Your task to perform on an android device: delete browsing data in the chrome app Image 0: 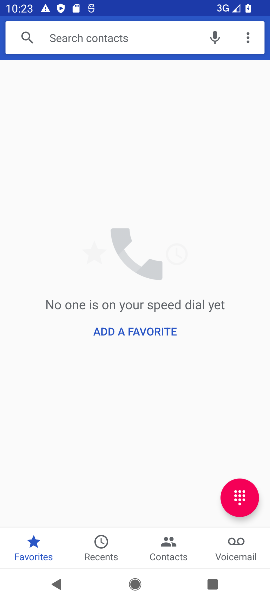
Step 0: press home button
Your task to perform on an android device: delete browsing data in the chrome app Image 1: 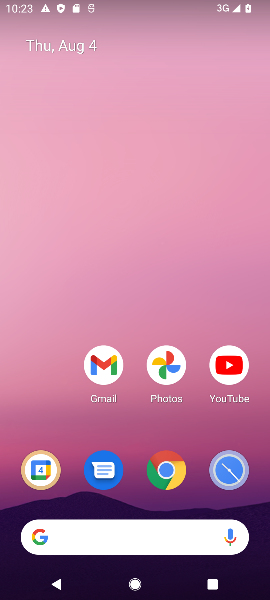
Step 1: click (172, 465)
Your task to perform on an android device: delete browsing data in the chrome app Image 2: 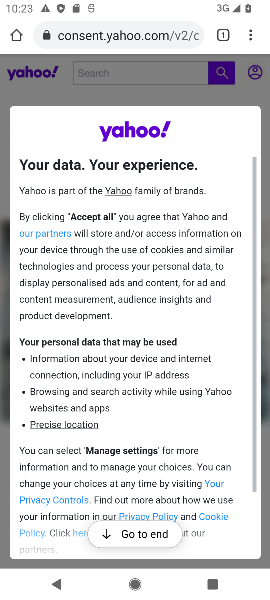
Step 2: click (249, 35)
Your task to perform on an android device: delete browsing data in the chrome app Image 3: 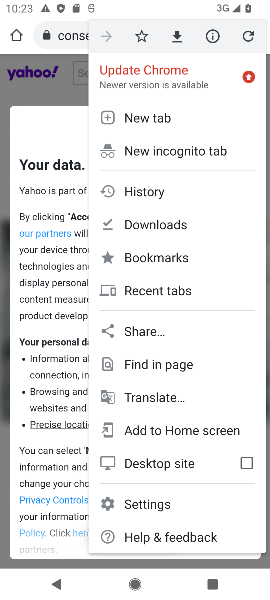
Step 3: click (138, 200)
Your task to perform on an android device: delete browsing data in the chrome app Image 4: 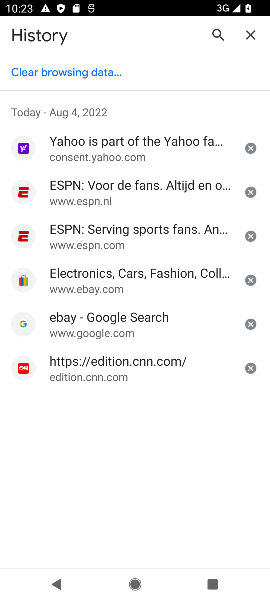
Step 4: click (74, 69)
Your task to perform on an android device: delete browsing data in the chrome app Image 5: 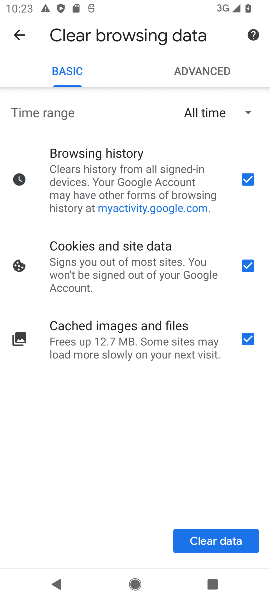
Step 5: click (199, 538)
Your task to perform on an android device: delete browsing data in the chrome app Image 6: 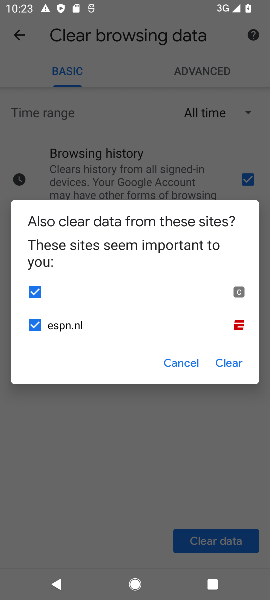
Step 6: click (235, 363)
Your task to perform on an android device: delete browsing data in the chrome app Image 7: 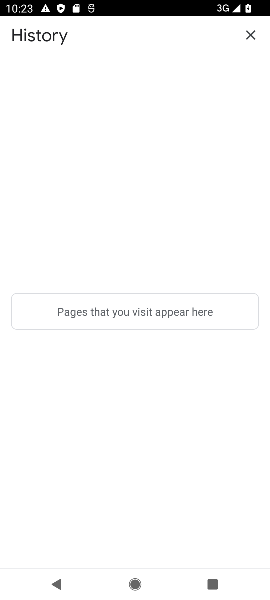
Step 7: task complete